Your task to perform on an android device: open sync settings in chrome Image 0: 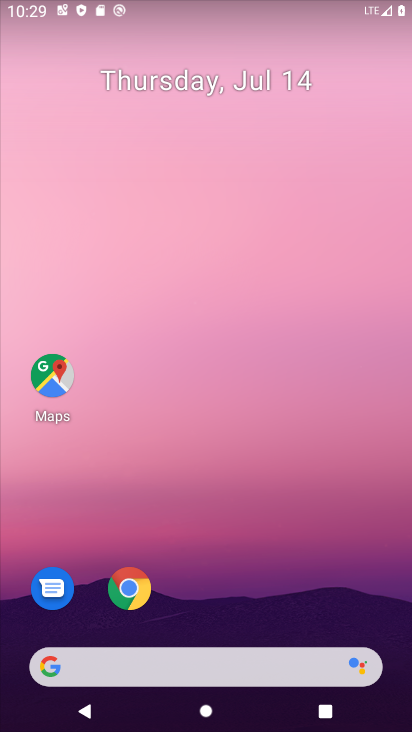
Step 0: drag from (360, 608) to (8, 87)
Your task to perform on an android device: open sync settings in chrome Image 1: 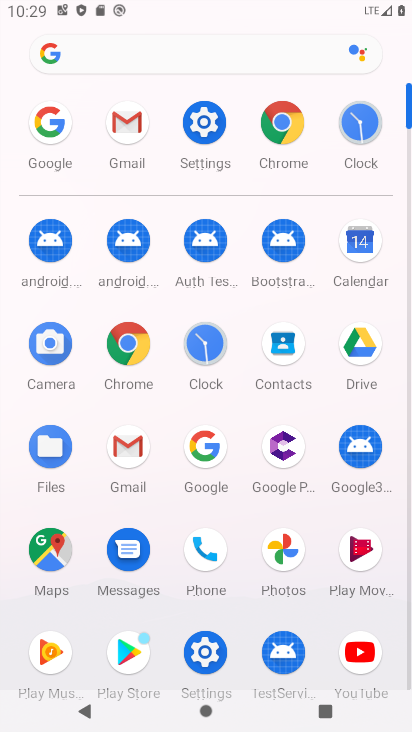
Step 1: click (135, 351)
Your task to perform on an android device: open sync settings in chrome Image 2: 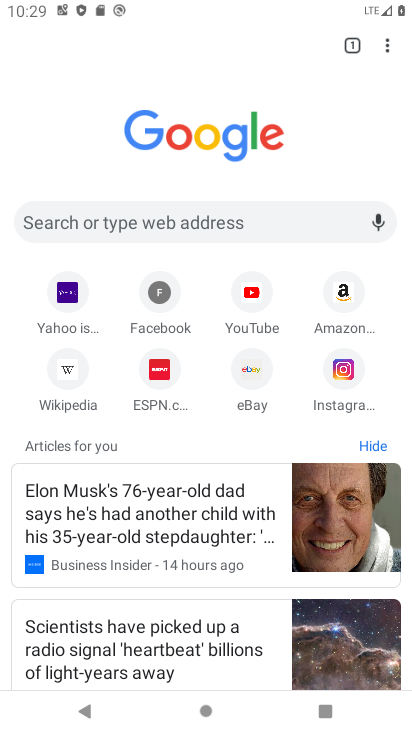
Step 2: click (384, 41)
Your task to perform on an android device: open sync settings in chrome Image 3: 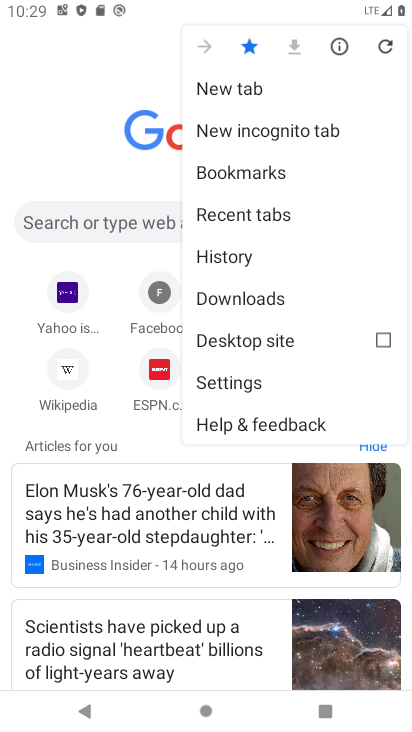
Step 3: click (242, 387)
Your task to perform on an android device: open sync settings in chrome Image 4: 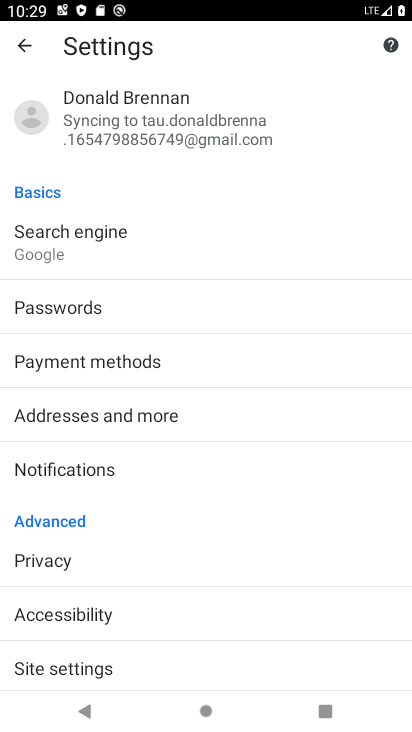
Step 4: click (106, 669)
Your task to perform on an android device: open sync settings in chrome Image 5: 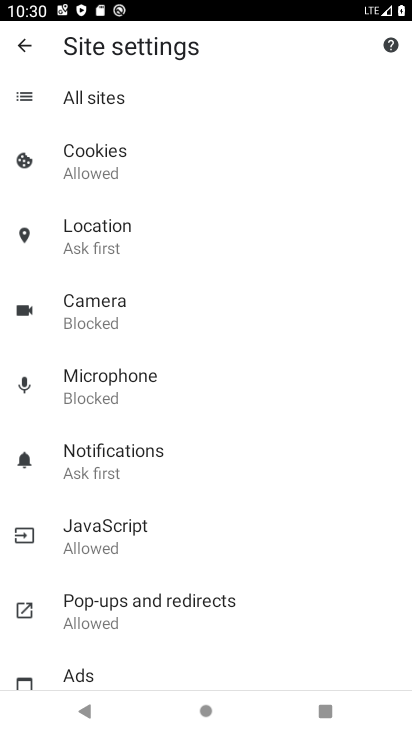
Step 5: drag from (114, 646) to (154, 279)
Your task to perform on an android device: open sync settings in chrome Image 6: 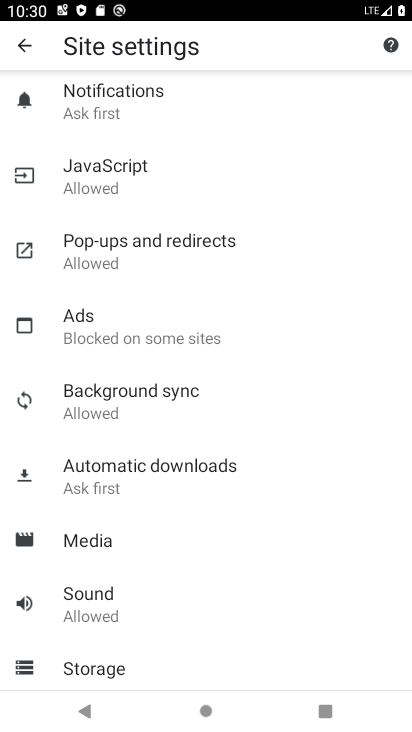
Step 6: click (122, 416)
Your task to perform on an android device: open sync settings in chrome Image 7: 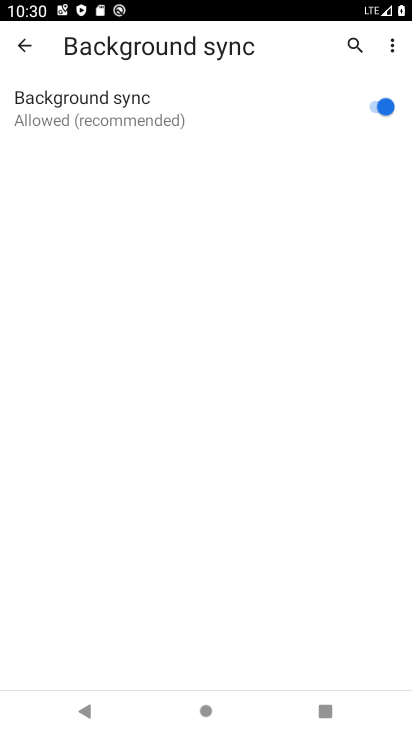
Step 7: task complete